Your task to perform on an android device: Open Amazon Image 0: 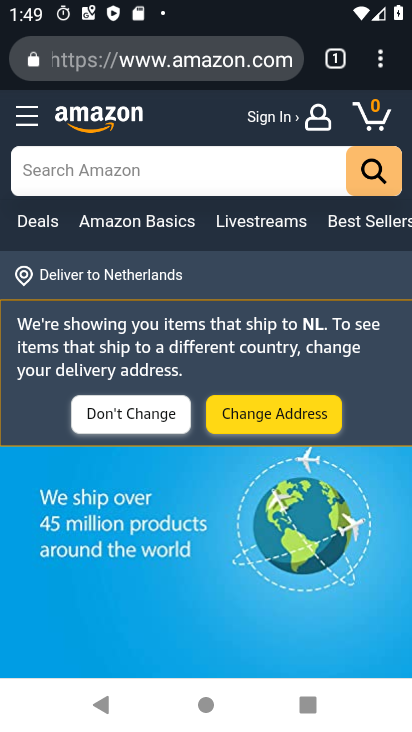
Step 0: press home button
Your task to perform on an android device: Open Amazon Image 1: 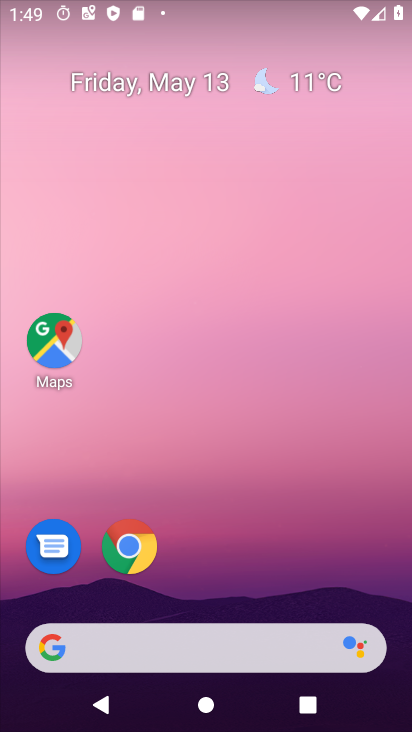
Step 1: click (130, 550)
Your task to perform on an android device: Open Amazon Image 2: 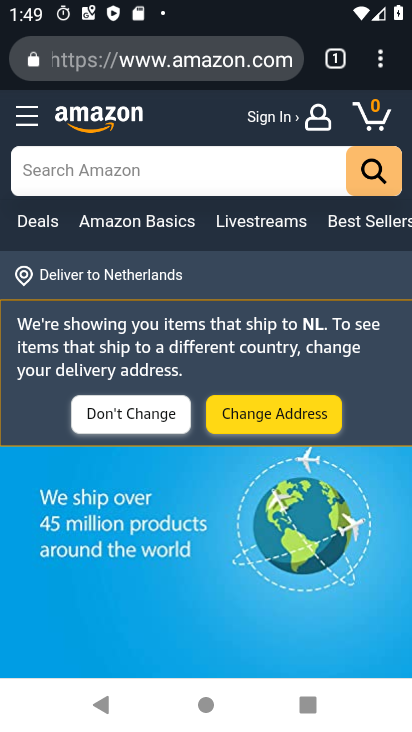
Step 2: task complete